Your task to perform on an android device: turn on the 12-hour format for clock Image 0: 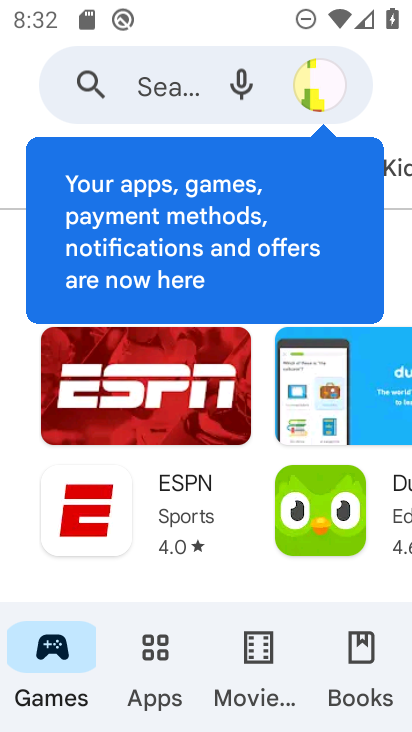
Step 0: press back button
Your task to perform on an android device: turn on the 12-hour format for clock Image 1: 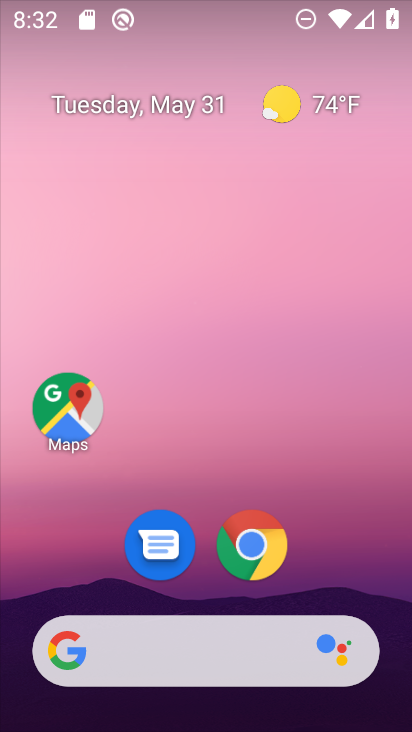
Step 1: drag from (328, 539) to (228, 12)
Your task to perform on an android device: turn on the 12-hour format for clock Image 2: 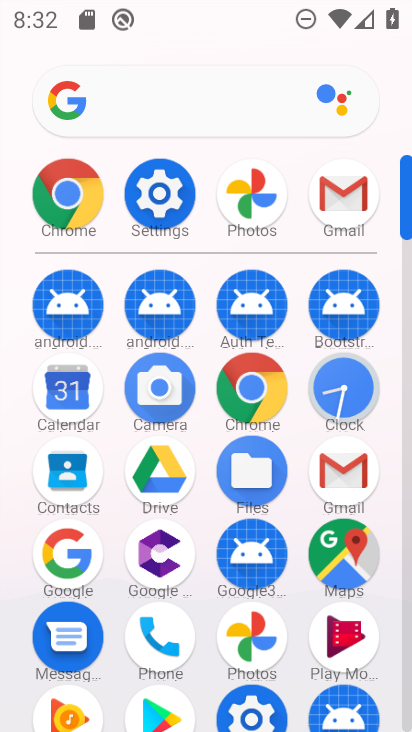
Step 2: click (342, 381)
Your task to perform on an android device: turn on the 12-hour format for clock Image 3: 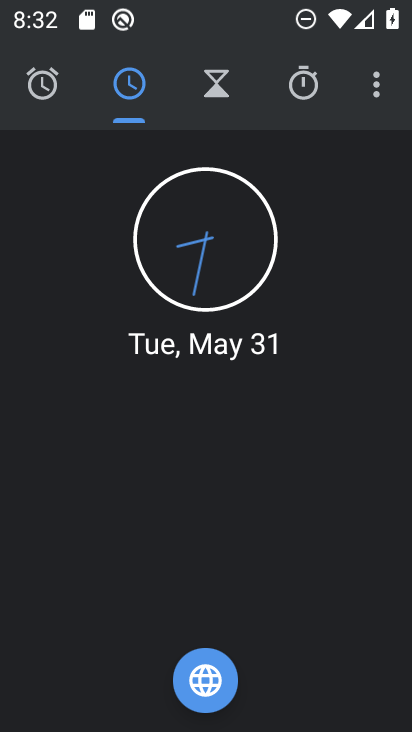
Step 3: drag from (376, 87) to (317, 161)
Your task to perform on an android device: turn on the 12-hour format for clock Image 4: 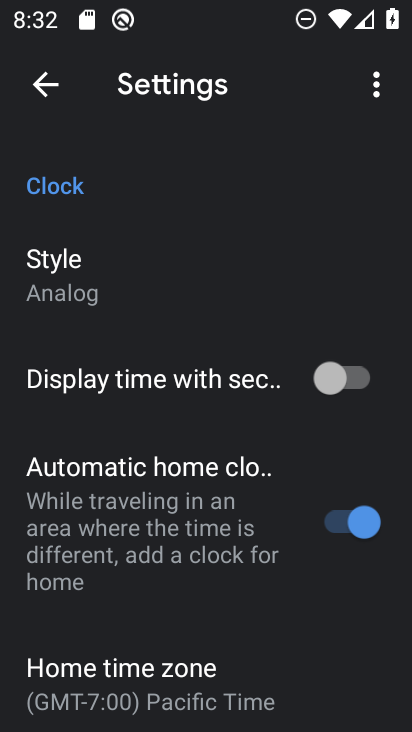
Step 4: drag from (217, 601) to (230, 159)
Your task to perform on an android device: turn on the 12-hour format for clock Image 5: 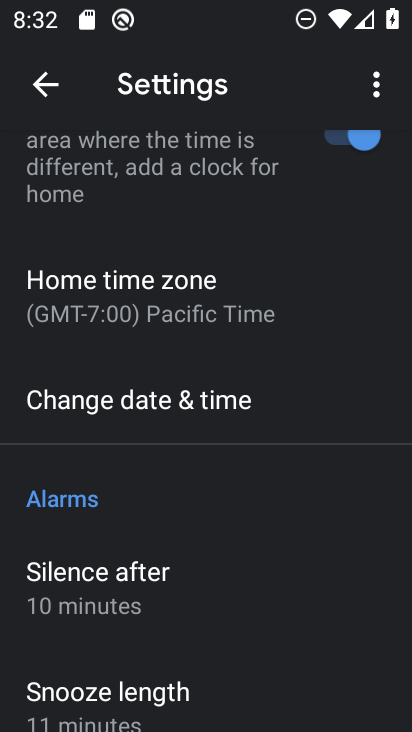
Step 5: click (179, 392)
Your task to perform on an android device: turn on the 12-hour format for clock Image 6: 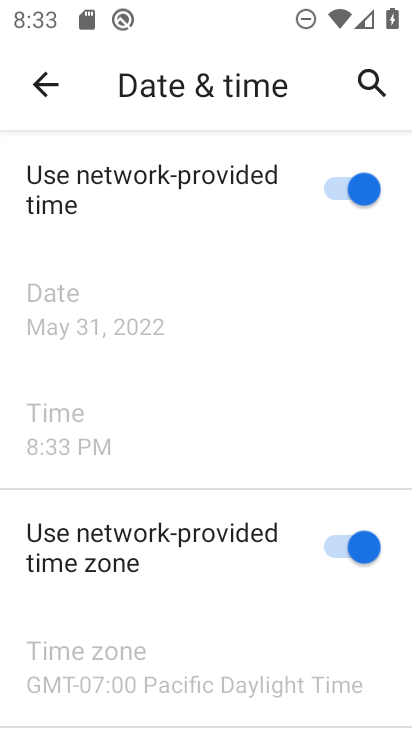
Step 6: task complete